Your task to perform on an android device: Open Google Image 0: 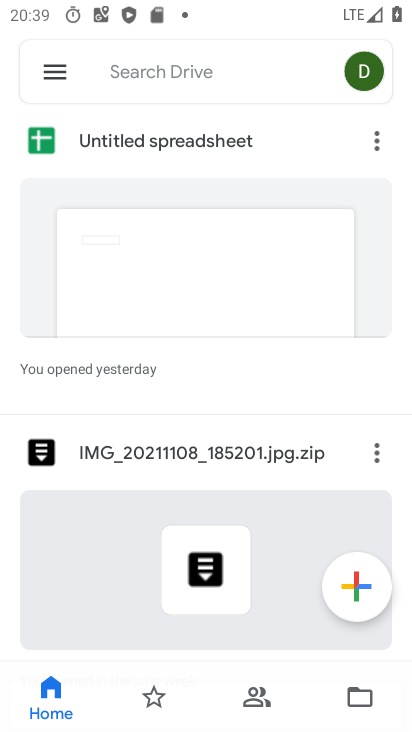
Step 0: press home button
Your task to perform on an android device: Open Google Image 1: 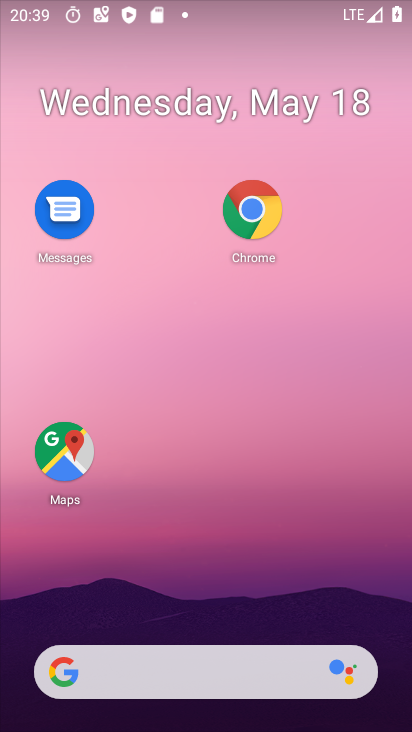
Step 1: click (194, 667)
Your task to perform on an android device: Open Google Image 2: 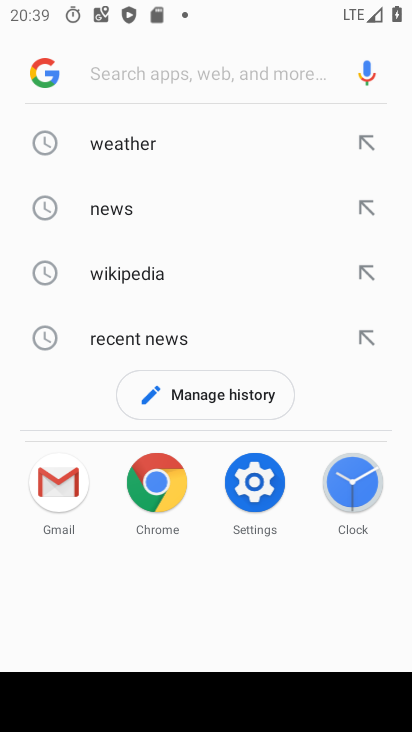
Step 2: task complete